Your task to perform on an android device: turn off airplane mode Image 0: 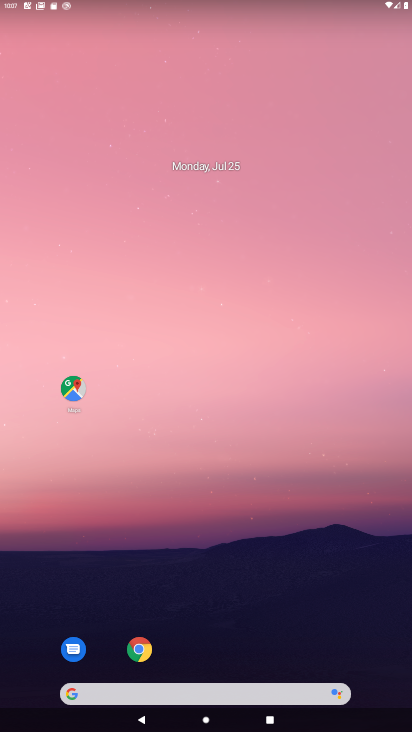
Step 0: drag from (391, 667) to (318, 57)
Your task to perform on an android device: turn off airplane mode Image 1: 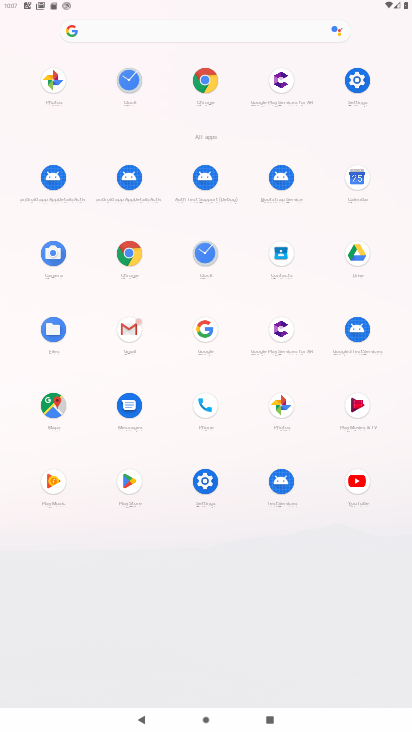
Step 1: click (203, 481)
Your task to perform on an android device: turn off airplane mode Image 2: 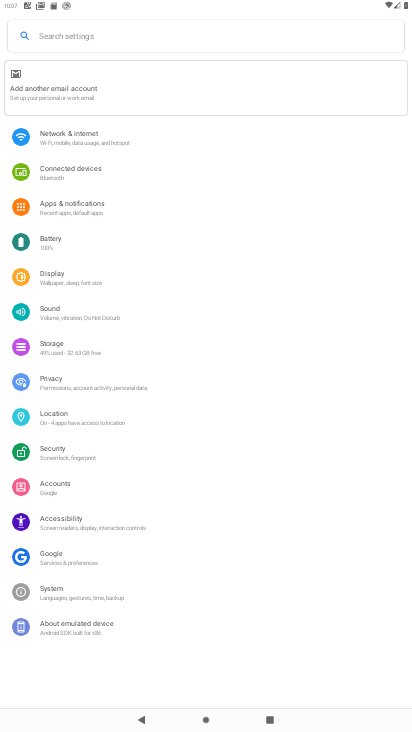
Step 2: click (69, 132)
Your task to perform on an android device: turn off airplane mode Image 3: 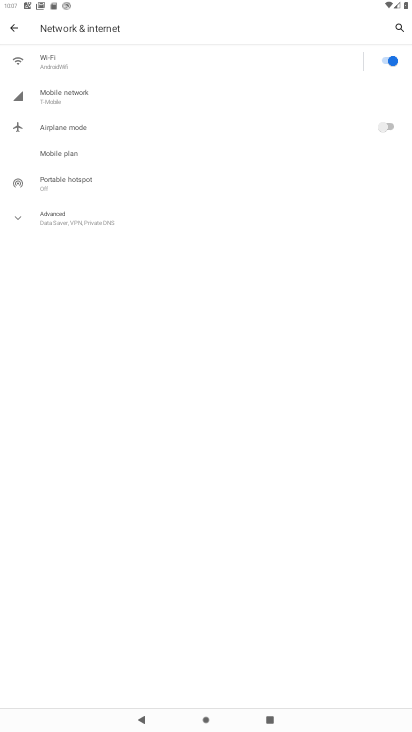
Step 3: task complete